Your task to perform on an android device: change text size in settings app Image 0: 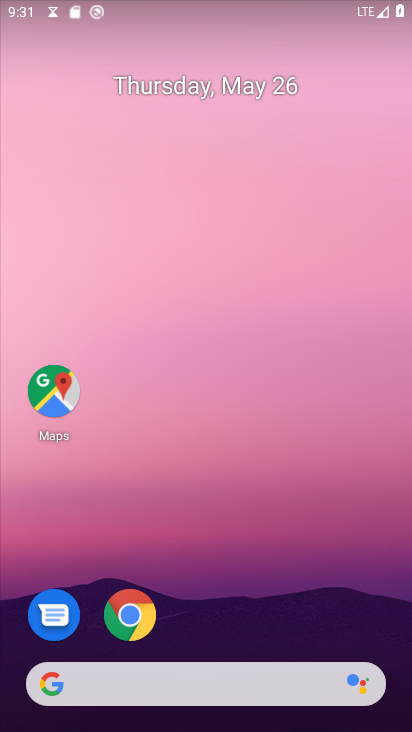
Step 0: drag from (290, 656) to (270, 268)
Your task to perform on an android device: change text size in settings app Image 1: 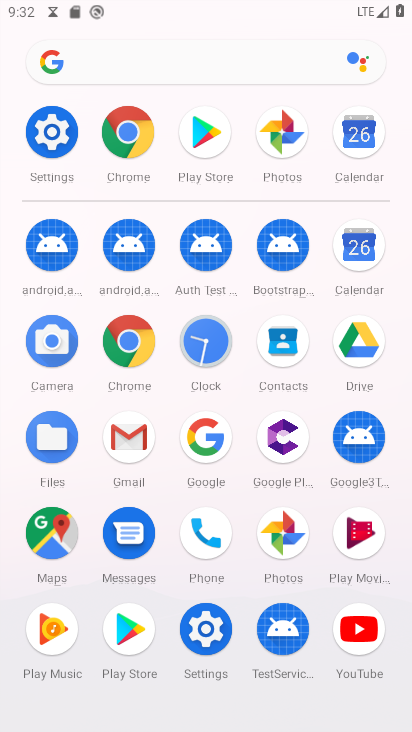
Step 1: click (52, 121)
Your task to perform on an android device: change text size in settings app Image 2: 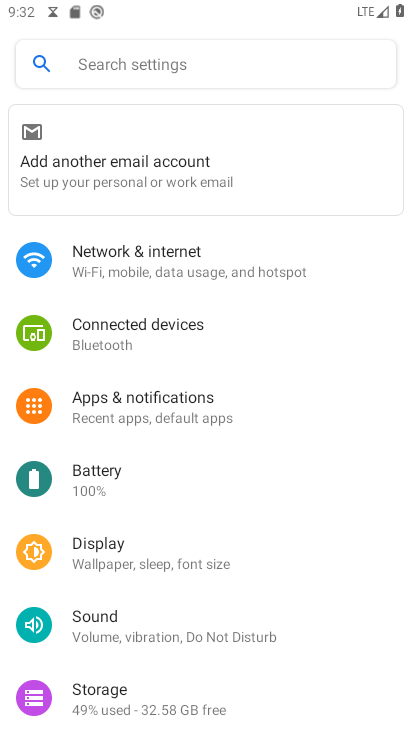
Step 2: drag from (194, 608) to (274, 170)
Your task to perform on an android device: change text size in settings app Image 3: 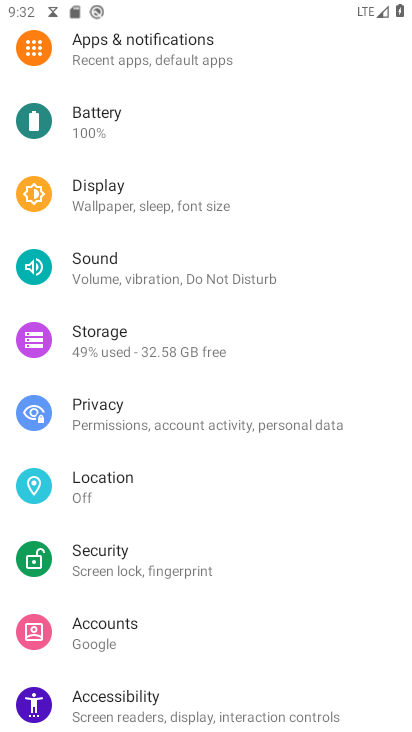
Step 3: drag from (191, 604) to (234, 392)
Your task to perform on an android device: change text size in settings app Image 4: 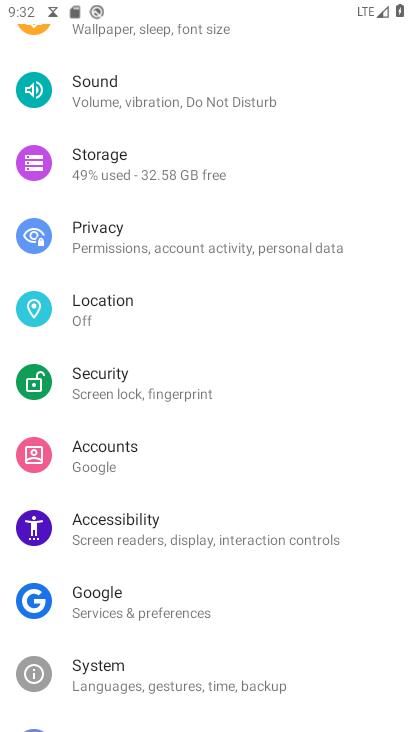
Step 4: click (144, 675)
Your task to perform on an android device: change text size in settings app Image 5: 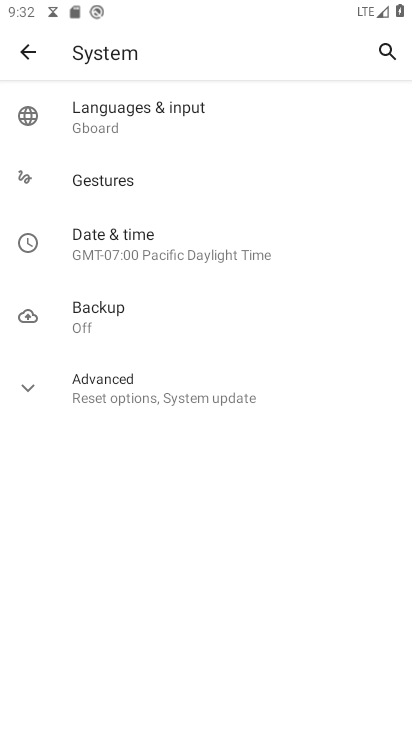
Step 5: press back button
Your task to perform on an android device: change text size in settings app Image 6: 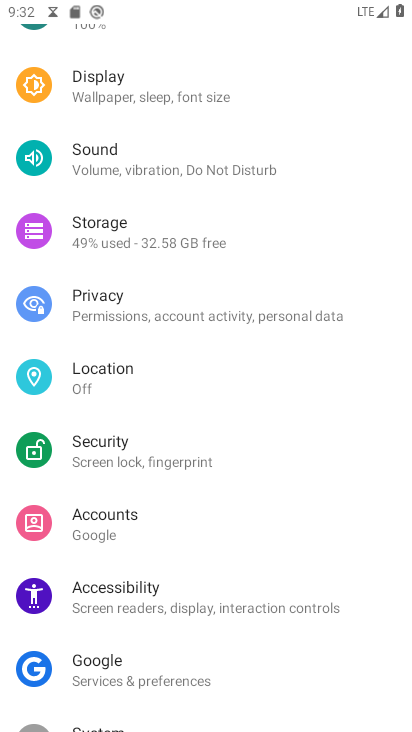
Step 6: click (159, 585)
Your task to perform on an android device: change text size in settings app Image 7: 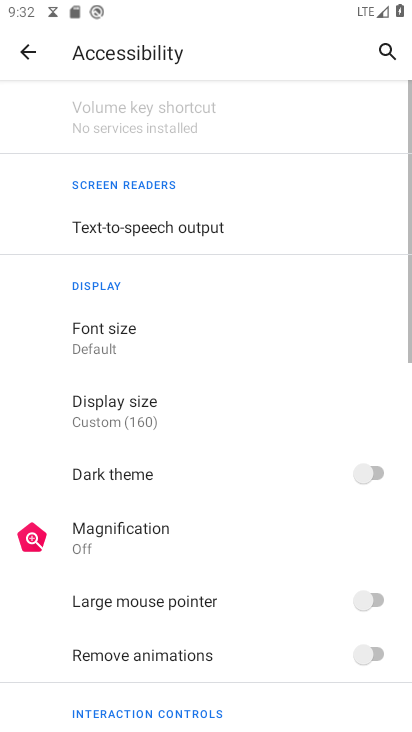
Step 7: click (179, 334)
Your task to perform on an android device: change text size in settings app Image 8: 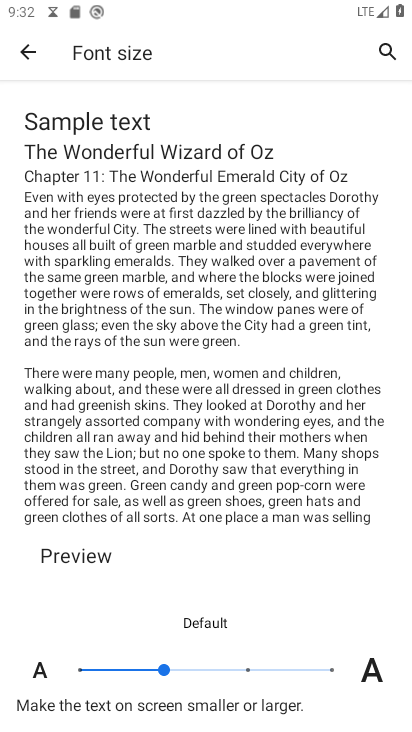
Step 8: click (228, 671)
Your task to perform on an android device: change text size in settings app Image 9: 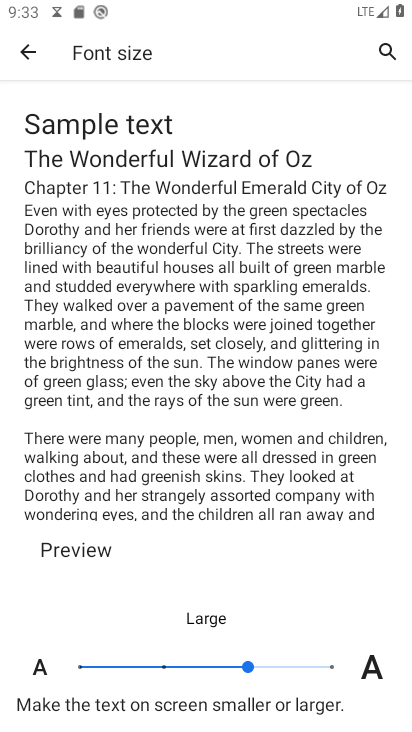
Step 9: task complete